Your task to perform on an android device: allow notifications from all sites in the chrome app Image 0: 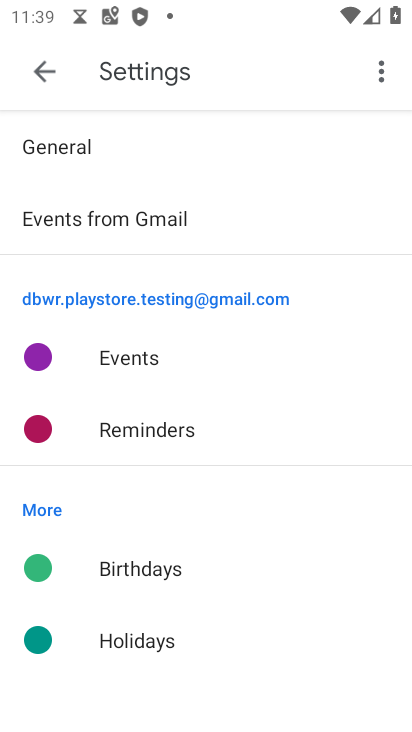
Step 0: press home button
Your task to perform on an android device: allow notifications from all sites in the chrome app Image 1: 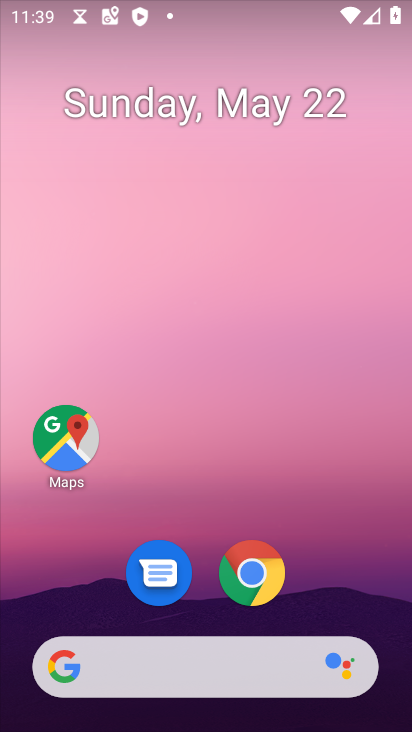
Step 1: click (246, 594)
Your task to perform on an android device: allow notifications from all sites in the chrome app Image 2: 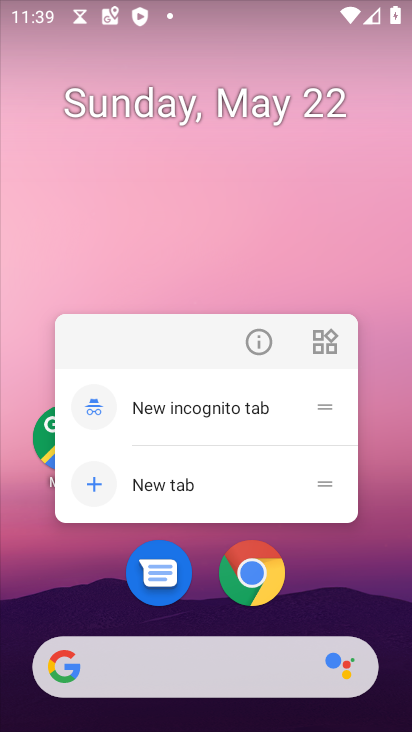
Step 2: click (245, 579)
Your task to perform on an android device: allow notifications from all sites in the chrome app Image 3: 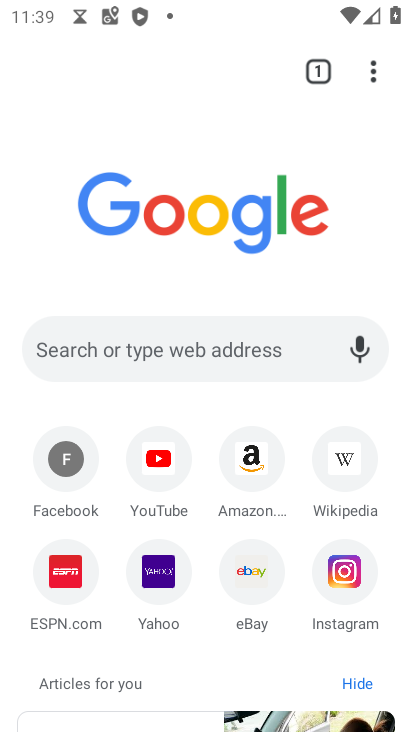
Step 3: drag from (377, 77) to (236, 606)
Your task to perform on an android device: allow notifications from all sites in the chrome app Image 4: 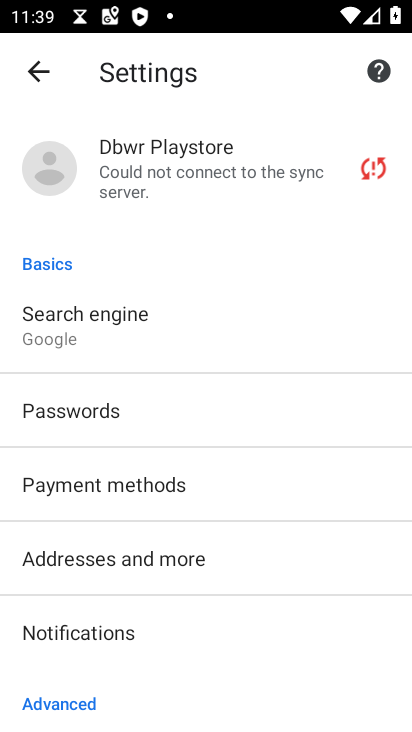
Step 4: drag from (128, 646) to (230, 318)
Your task to perform on an android device: allow notifications from all sites in the chrome app Image 5: 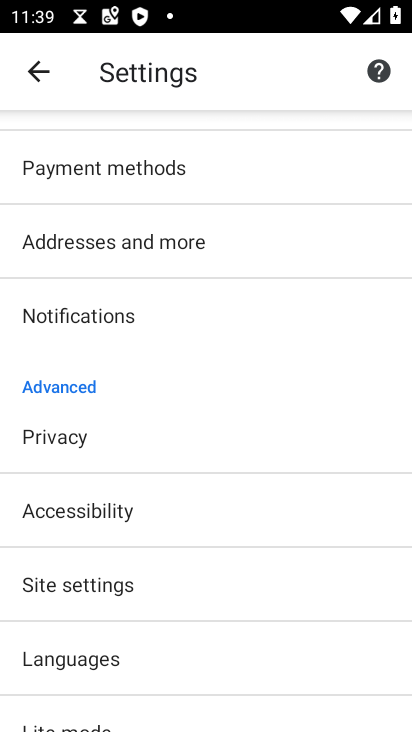
Step 5: click (106, 587)
Your task to perform on an android device: allow notifications from all sites in the chrome app Image 6: 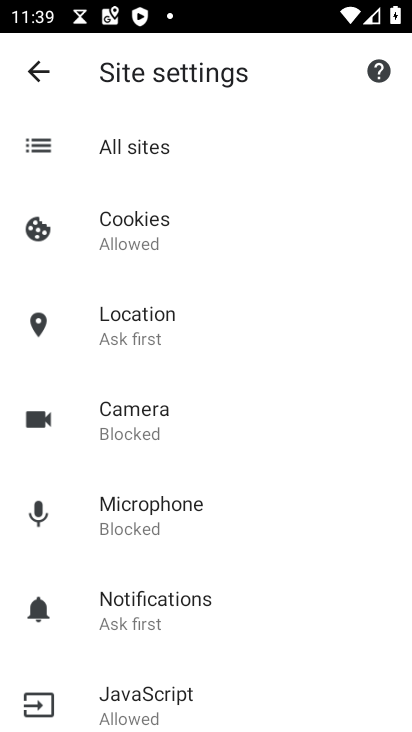
Step 6: click (168, 609)
Your task to perform on an android device: allow notifications from all sites in the chrome app Image 7: 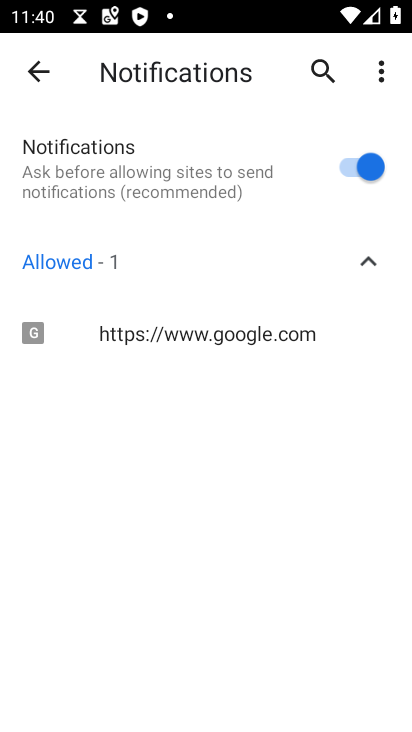
Step 7: task complete